Your task to perform on an android device: open a bookmark in the chrome app Image 0: 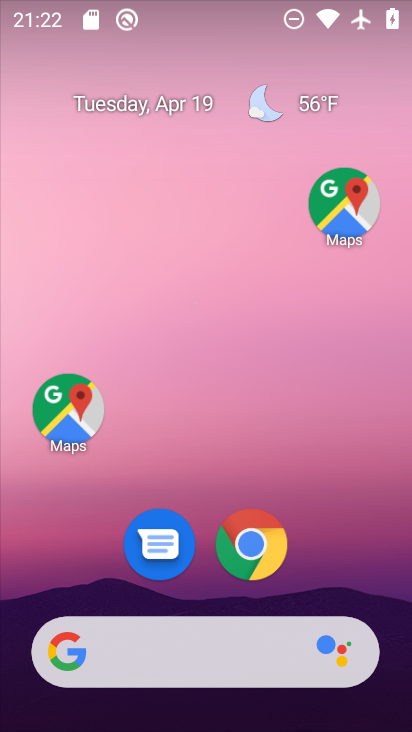
Step 0: drag from (192, 658) to (360, 83)
Your task to perform on an android device: open a bookmark in the chrome app Image 1: 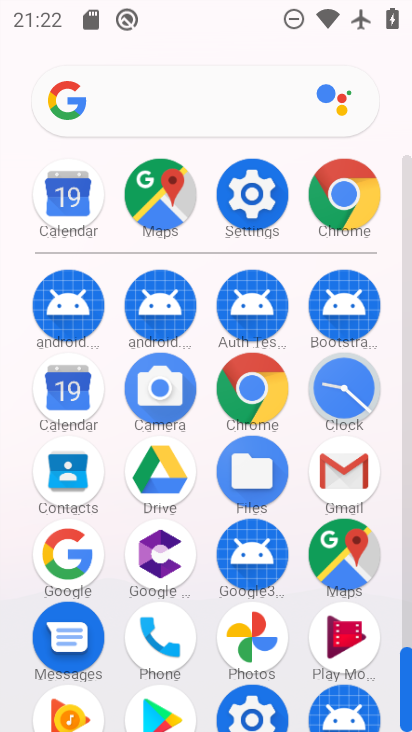
Step 1: click (342, 203)
Your task to perform on an android device: open a bookmark in the chrome app Image 2: 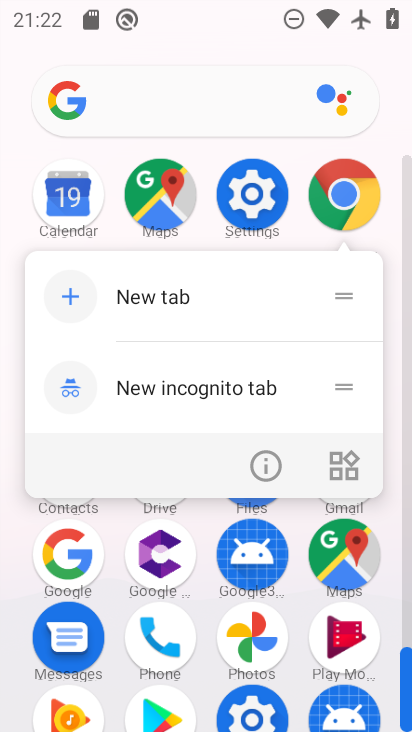
Step 2: click (340, 196)
Your task to perform on an android device: open a bookmark in the chrome app Image 3: 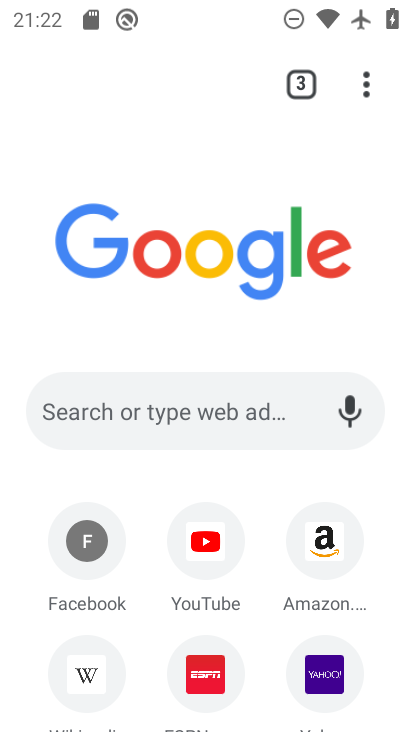
Step 3: click (365, 97)
Your task to perform on an android device: open a bookmark in the chrome app Image 4: 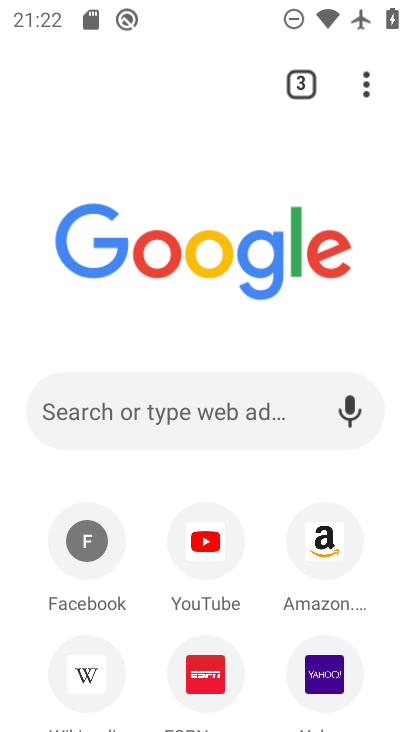
Step 4: click (367, 91)
Your task to perform on an android device: open a bookmark in the chrome app Image 5: 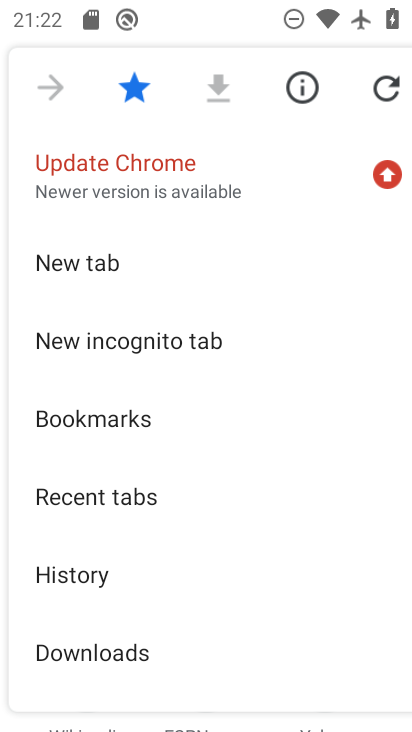
Step 5: click (123, 420)
Your task to perform on an android device: open a bookmark in the chrome app Image 6: 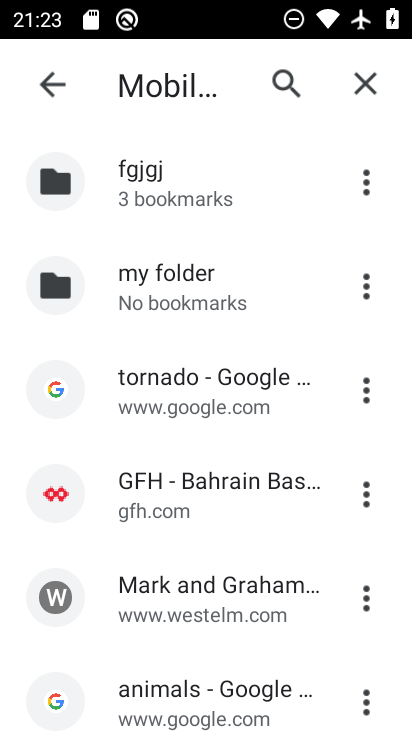
Step 6: task complete